Your task to perform on an android device: Open network settings Image 0: 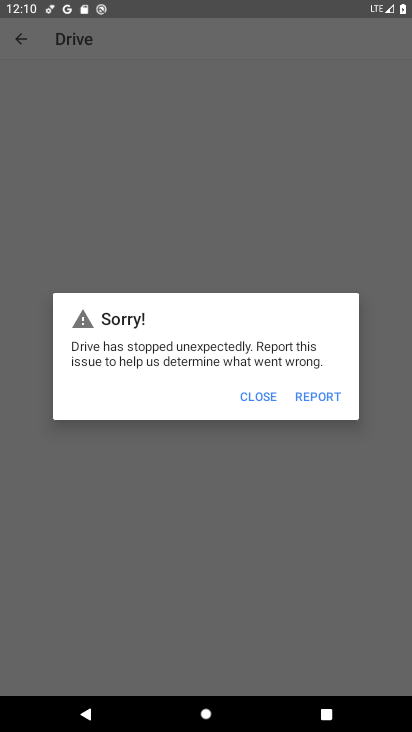
Step 0: press home button
Your task to perform on an android device: Open network settings Image 1: 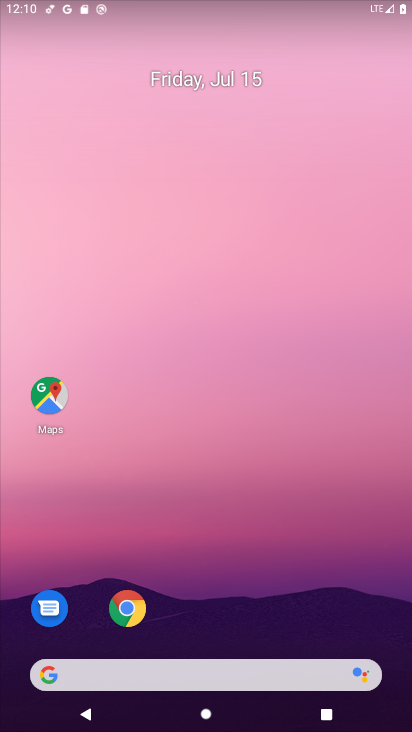
Step 1: drag from (229, 573) to (128, 31)
Your task to perform on an android device: Open network settings Image 2: 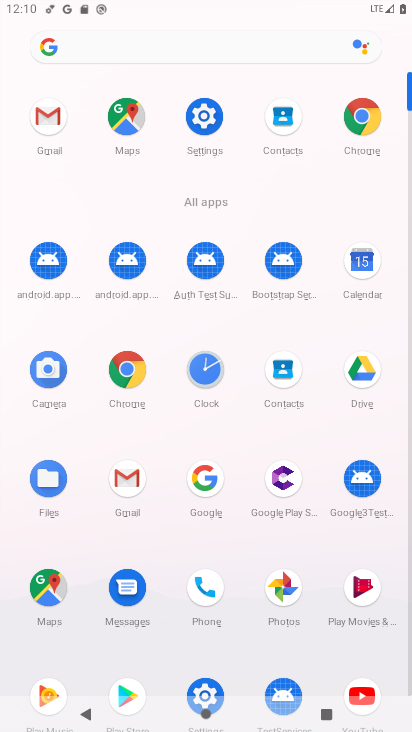
Step 2: click (200, 116)
Your task to perform on an android device: Open network settings Image 3: 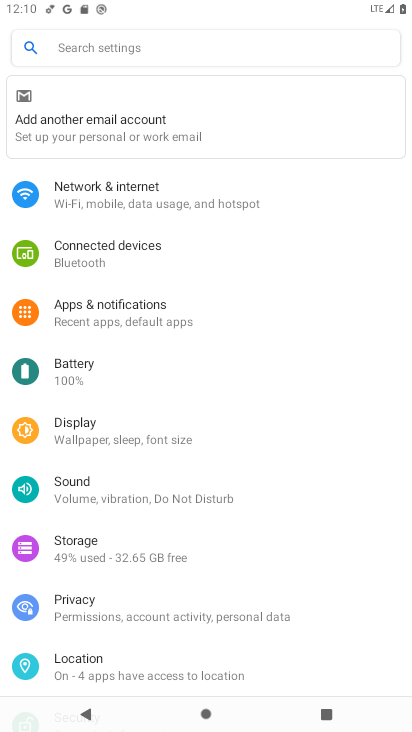
Step 3: click (95, 185)
Your task to perform on an android device: Open network settings Image 4: 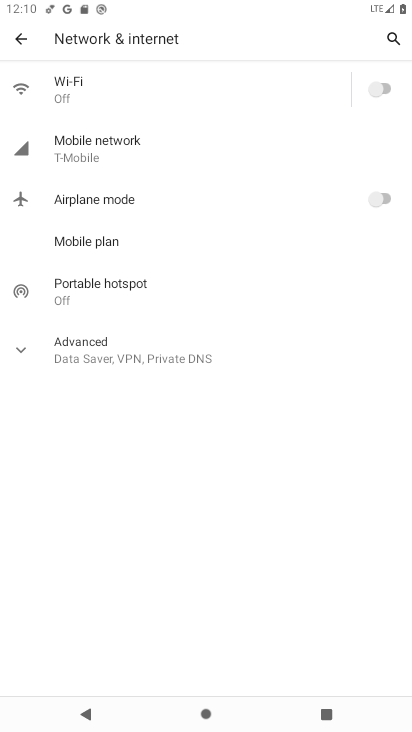
Step 4: task complete